Your task to perform on an android device: Open internet settings Image 0: 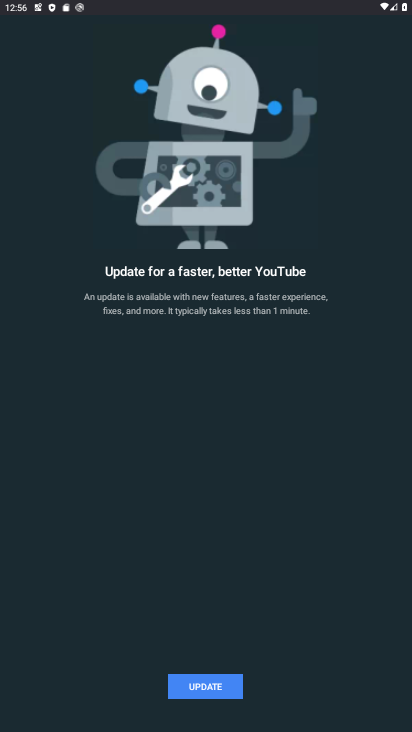
Step 0: press home button
Your task to perform on an android device: Open internet settings Image 1: 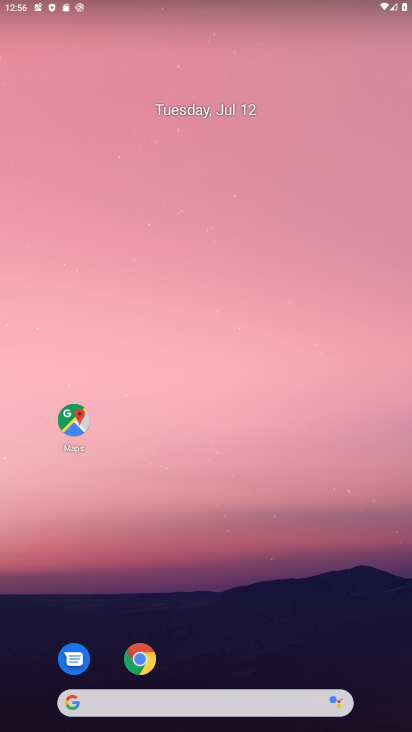
Step 1: drag from (212, 663) to (251, 219)
Your task to perform on an android device: Open internet settings Image 2: 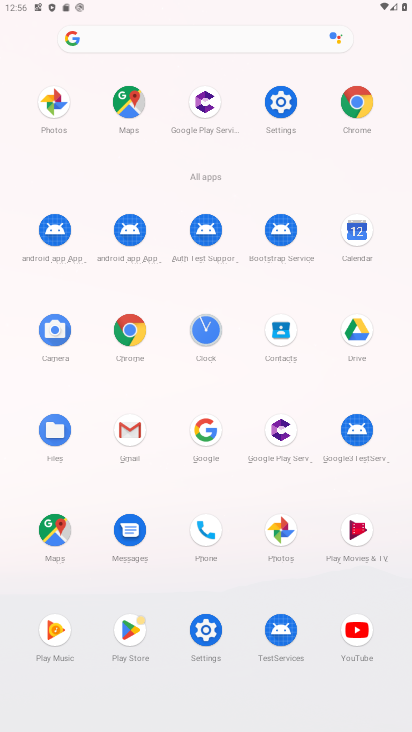
Step 2: click (271, 99)
Your task to perform on an android device: Open internet settings Image 3: 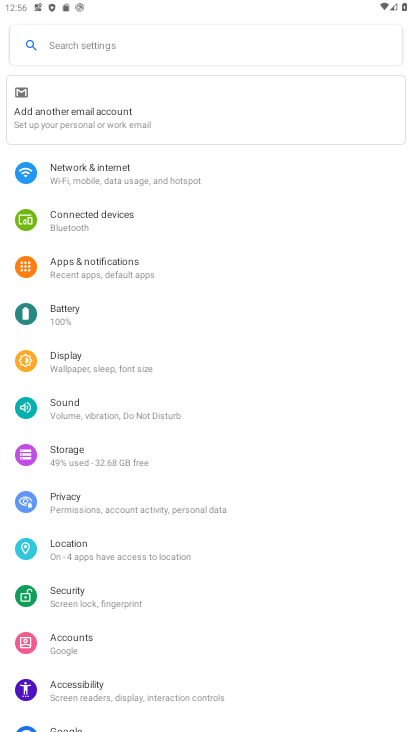
Step 3: click (176, 185)
Your task to perform on an android device: Open internet settings Image 4: 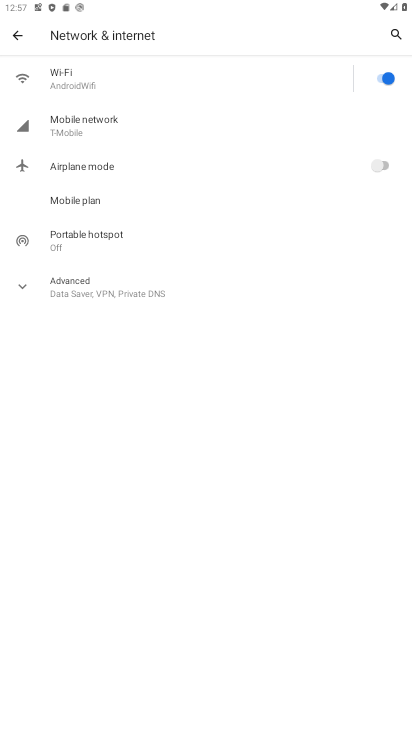
Step 4: task complete